Your task to perform on an android device: check android version Image 0: 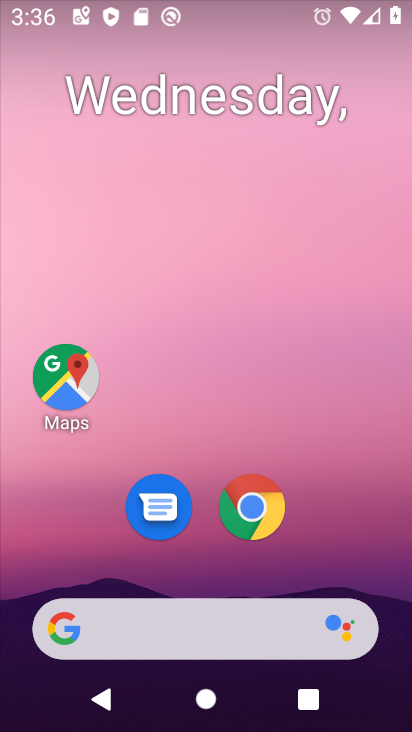
Step 0: drag from (315, 558) to (312, 253)
Your task to perform on an android device: check android version Image 1: 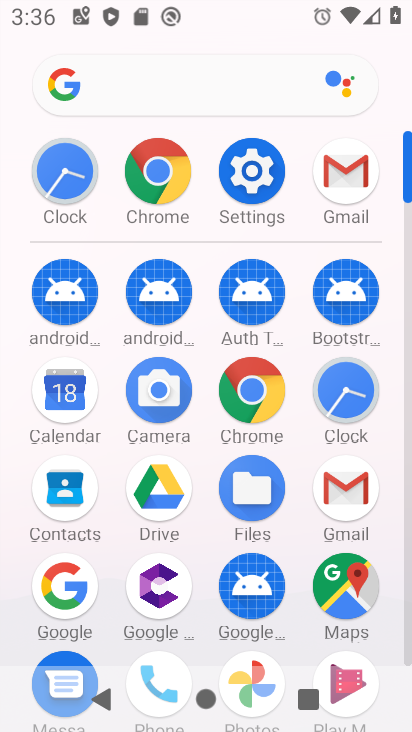
Step 1: click (241, 176)
Your task to perform on an android device: check android version Image 2: 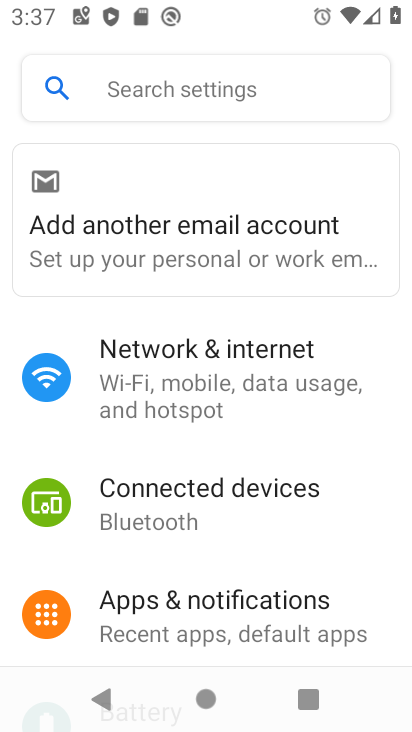
Step 2: drag from (271, 539) to (277, 383)
Your task to perform on an android device: check android version Image 3: 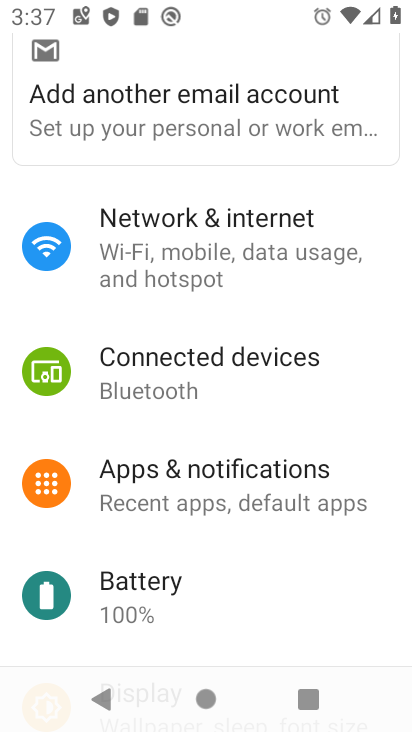
Step 3: drag from (280, 522) to (255, 350)
Your task to perform on an android device: check android version Image 4: 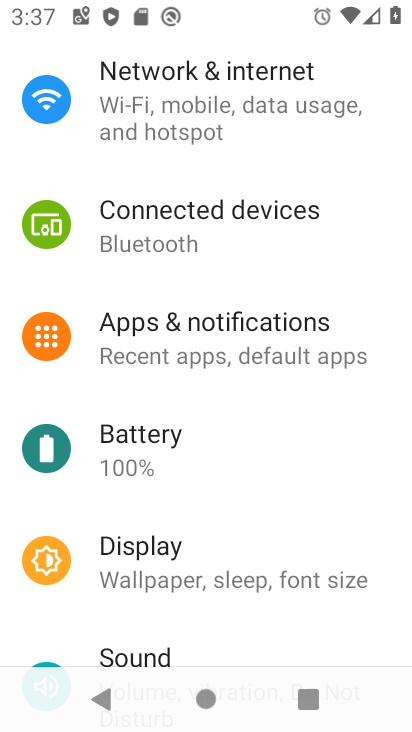
Step 4: drag from (193, 426) to (194, 255)
Your task to perform on an android device: check android version Image 5: 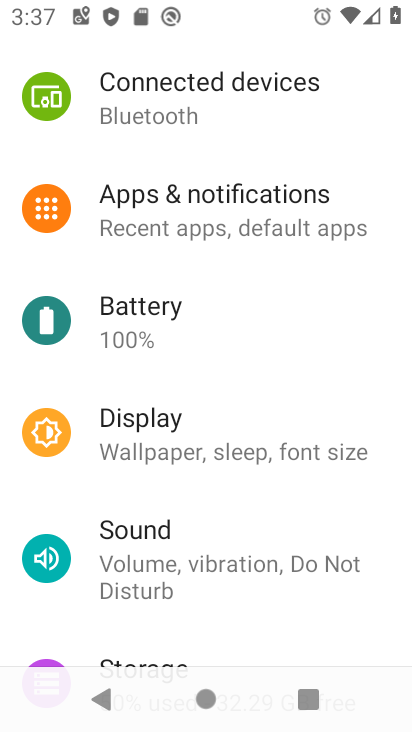
Step 5: drag from (275, 496) to (247, 251)
Your task to perform on an android device: check android version Image 6: 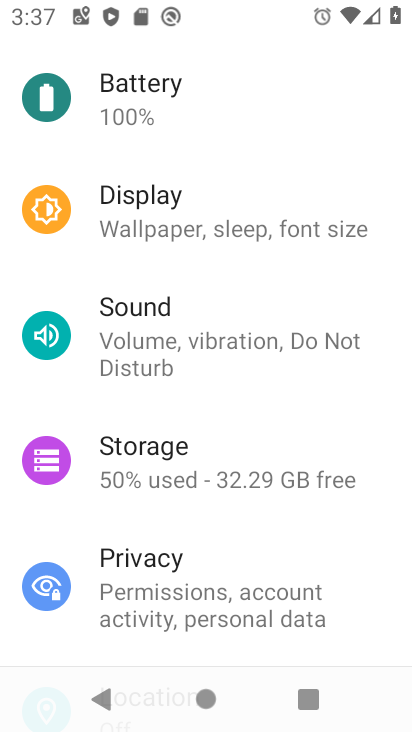
Step 6: drag from (297, 579) to (265, 432)
Your task to perform on an android device: check android version Image 7: 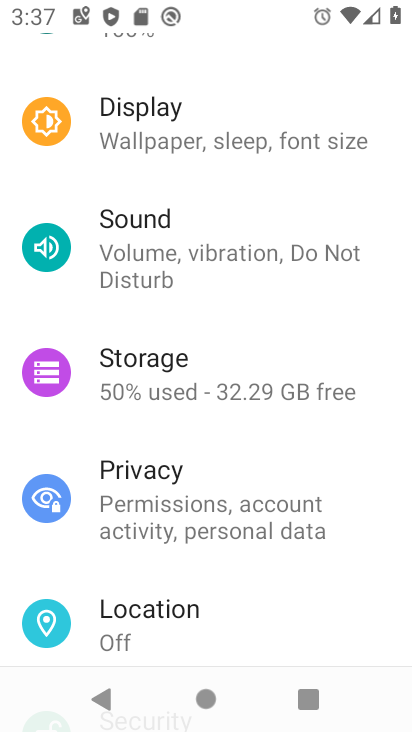
Step 7: drag from (265, 566) to (233, 317)
Your task to perform on an android device: check android version Image 8: 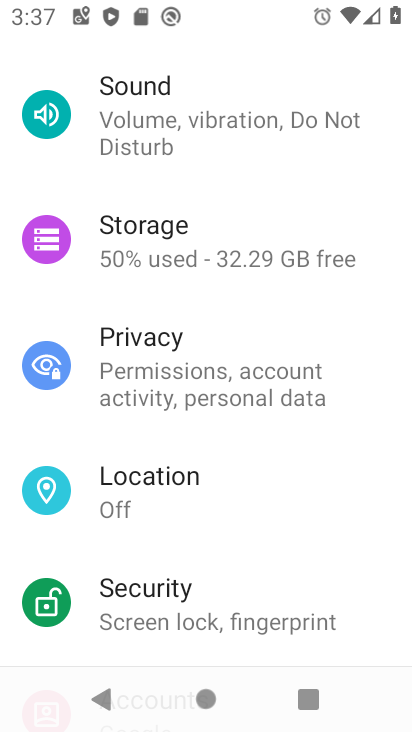
Step 8: drag from (298, 468) to (241, 140)
Your task to perform on an android device: check android version Image 9: 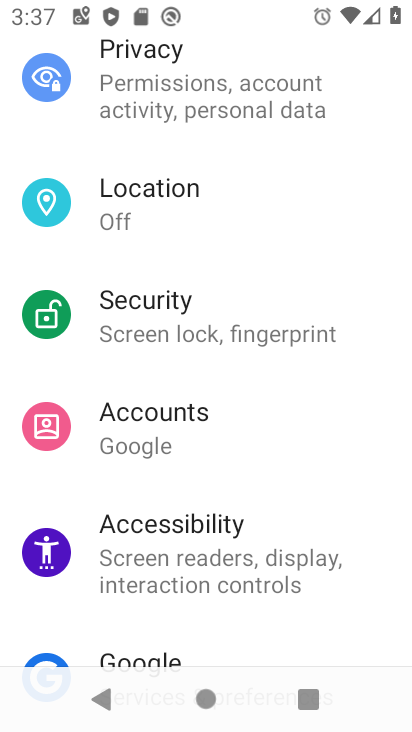
Step 9: drag from (266, 382) to (246, 132)
Your task to perform on an android device: check android version Image 10: 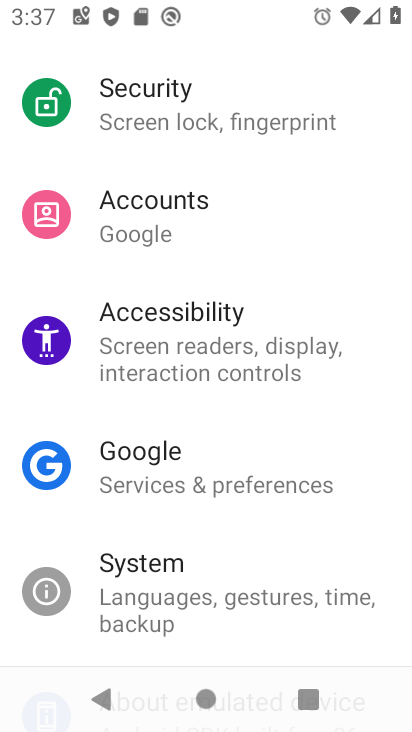
Step 10: drag from (309, 537) to (284, 346)
Your task to perform on an android device: check android version Image 11: 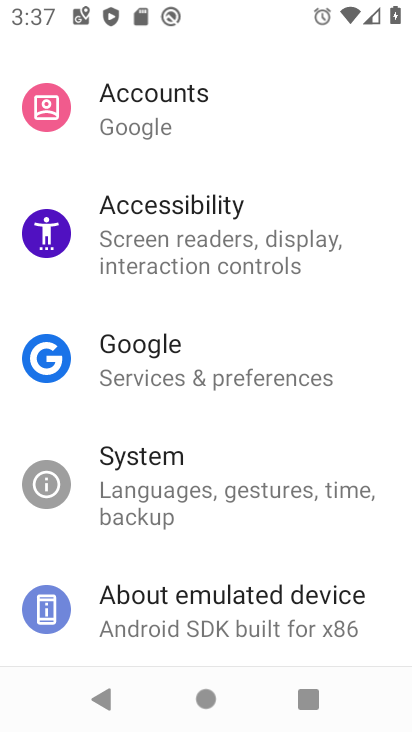
Step 11: click (241, 599)
Your task to perform on an android device: check android version Image 12: 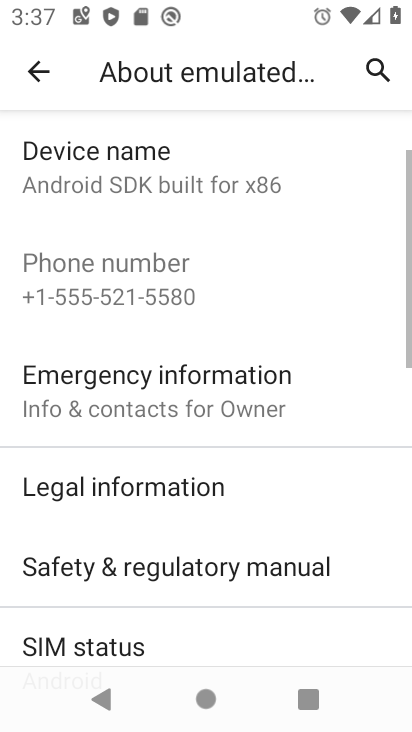
Step 12: drag from (242, 551) to (231, 303)
Your task to perform on an android device: check android version Image 13: 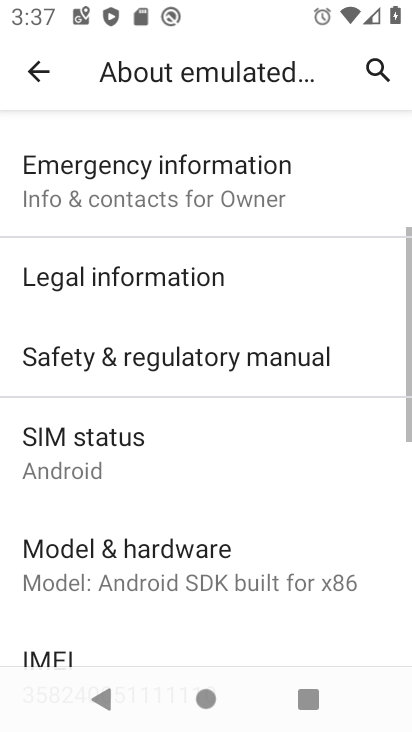
Step 13: drag from (252, 490) to (218, 234)
Your task to perform on an android device: check android version Image 14: 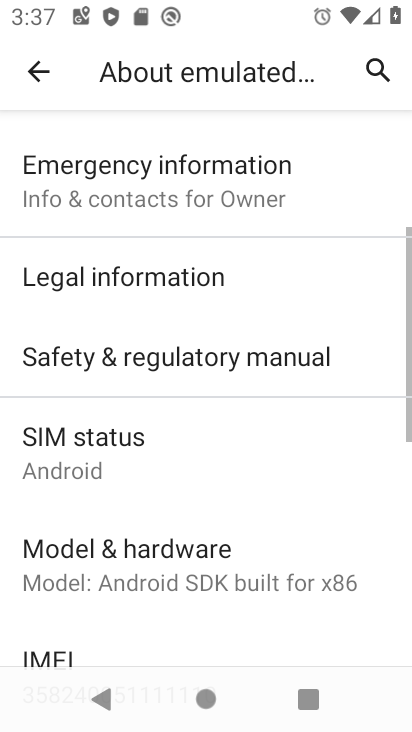
Step 14: drag from (272, 500) to (276, 192)
Your task to perform on an android device: check android version Image 15: 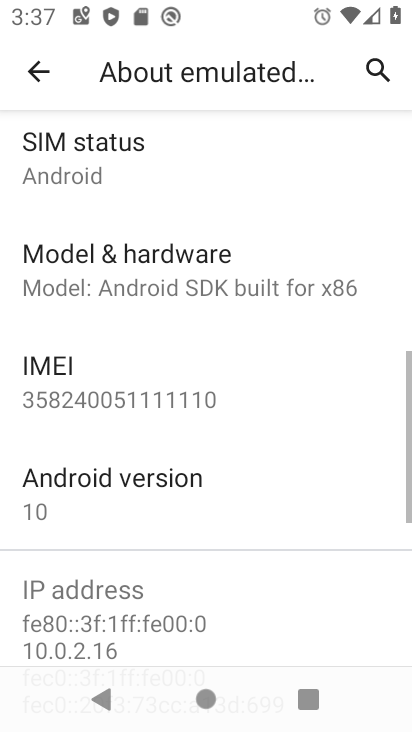
Step 15: click (304, 495)
Your task to perform on an android device: check android version Image 16: 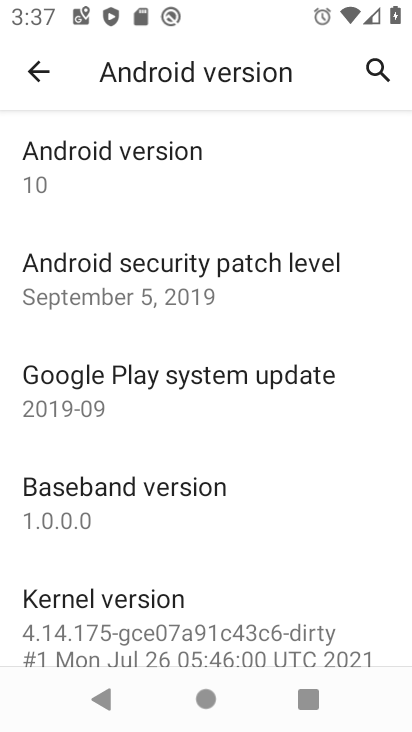
Step 16: task complete